Your task to perform on an android device: Open Google Maps Image 0: 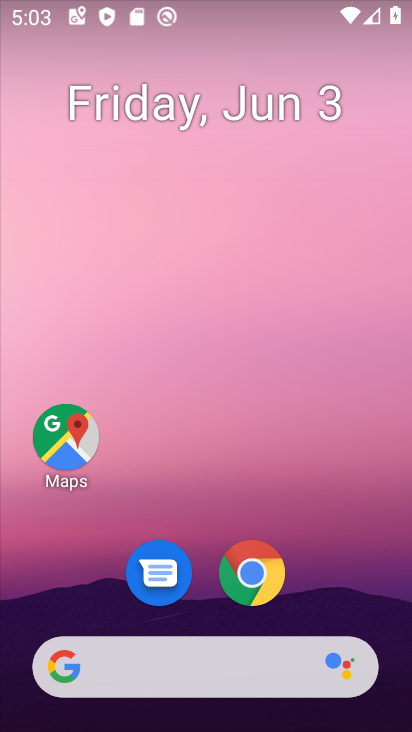
Step 0: click (293, 270)
Your task to perform on an android device: Open Google Maps Image 1: 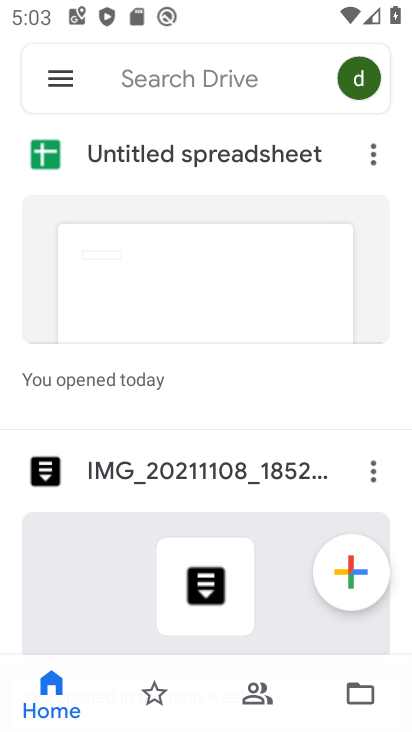
Step 1: press back button
Your task to perform on an android device: Open Google Maps Image 2: 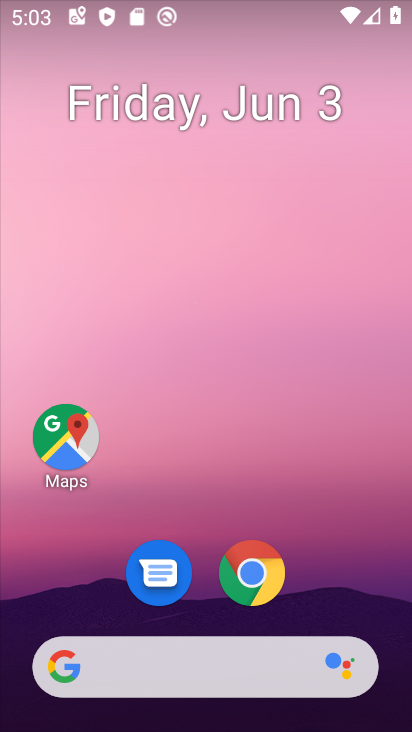
Step 2: click (67, 447)
Your task to perform on an android device: Open Google Maps Image 3: 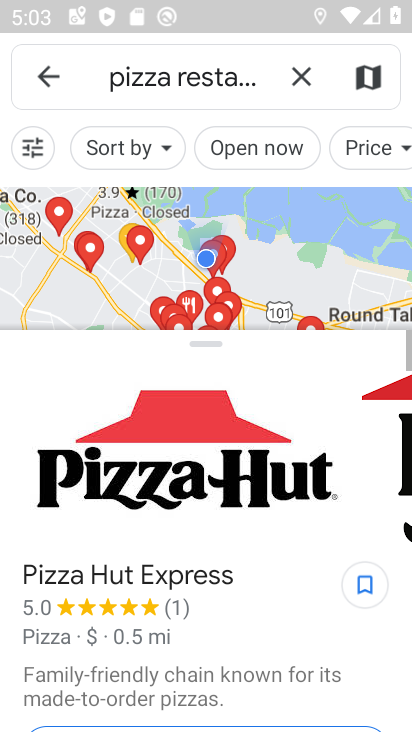
Step 3: task complete